Your task to perform on an android device: Go to wifi settings Image 0: 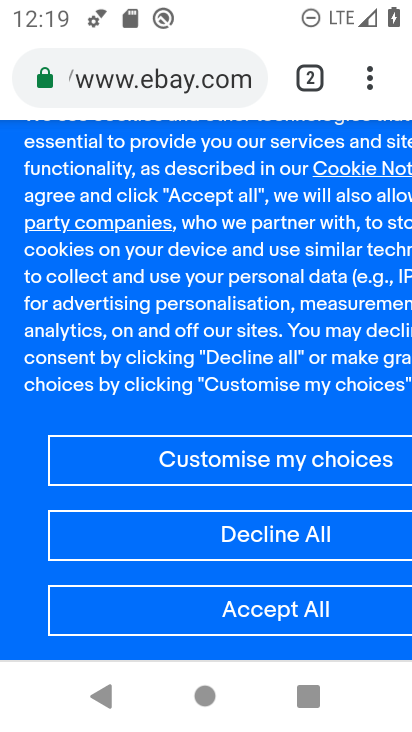
Step 0: press home button
Your task to perform on an android device: Go to wifi settings Image 1: 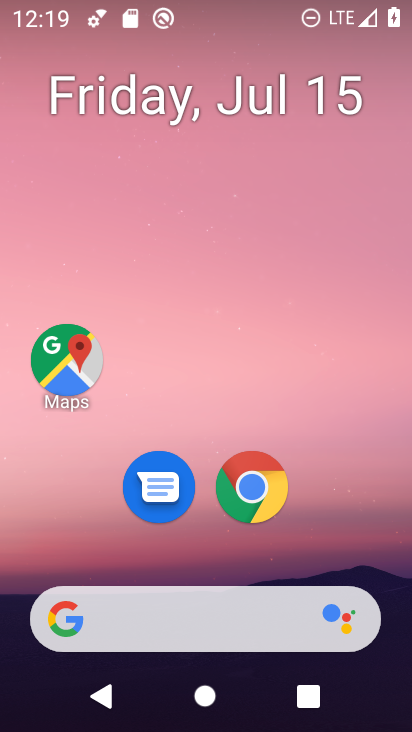
Step 1: drag from (244, 612) to (350, 38)
Your task to perform on an android device: Go to wifi settings Image 2: 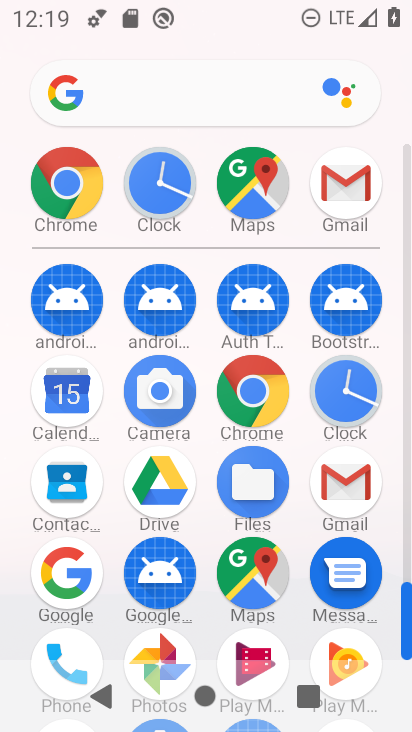
Step 2: drag from (192, 390) to (258, 174)
Your task to perform on an android device: Go to wifi settings Image 3: 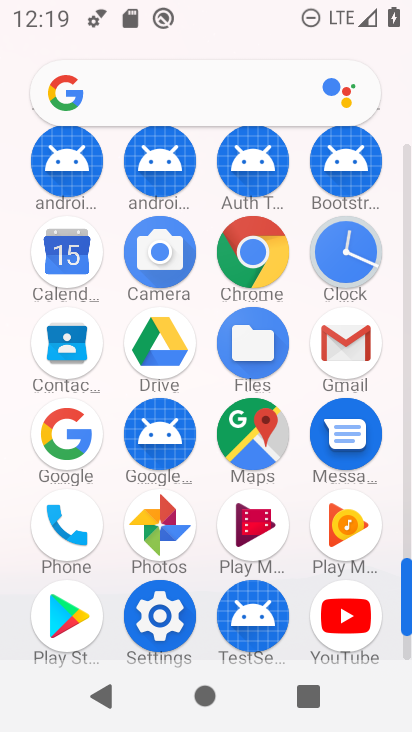
Step 3: click (175, 630)
Your task to perform on an android device: Go to wifi settings Image 4: 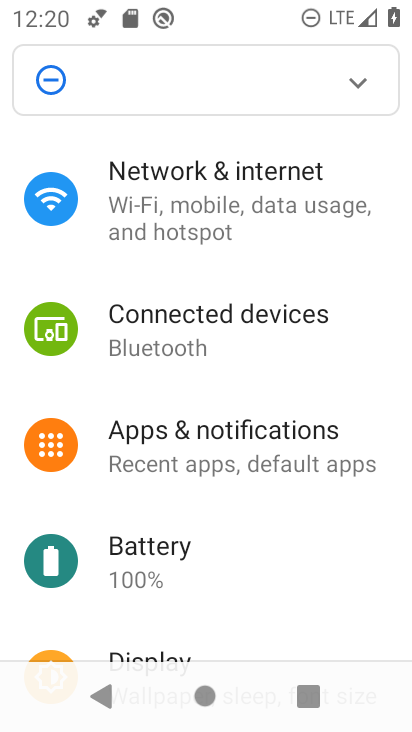
Step 4: drag from (154, 545) to (171, 383)
Your task to perform on an android device: Go to wifi settings Image 5: 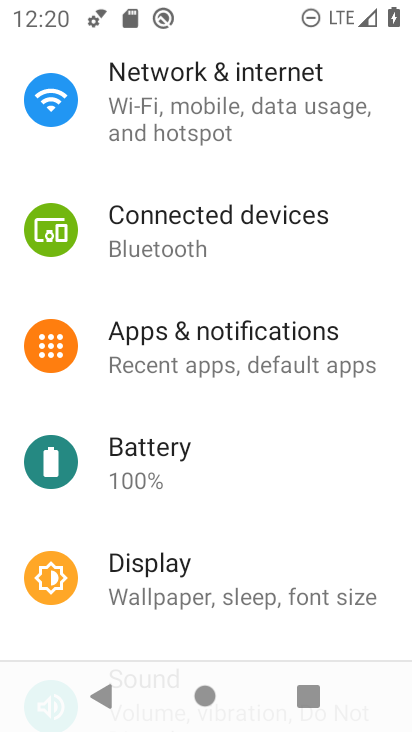
Step 5: drag from (202, 276) to (216, 551)
Your task to perform on an android device: Go to wifi settings Image 6: 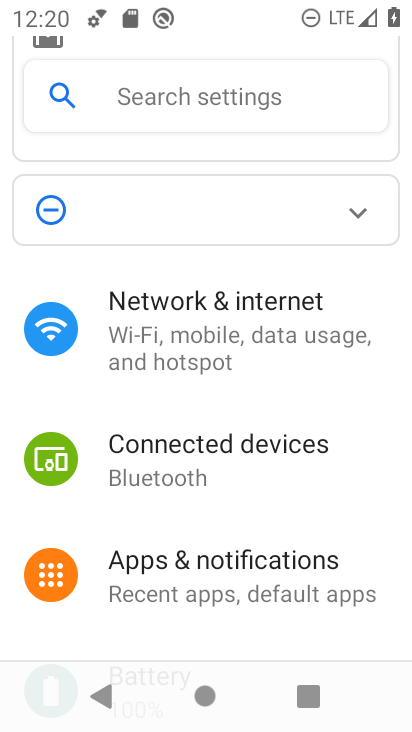
Step 6: click (207, 346)
Your task to perform on an android device: Go to wifi settings Image 7: 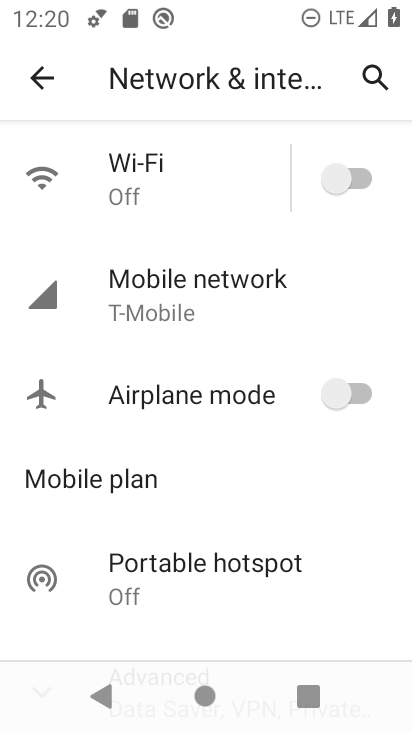
Step 7: click (174, 186)
Your task to perform on an android device: Go to wifi settings Image 8: 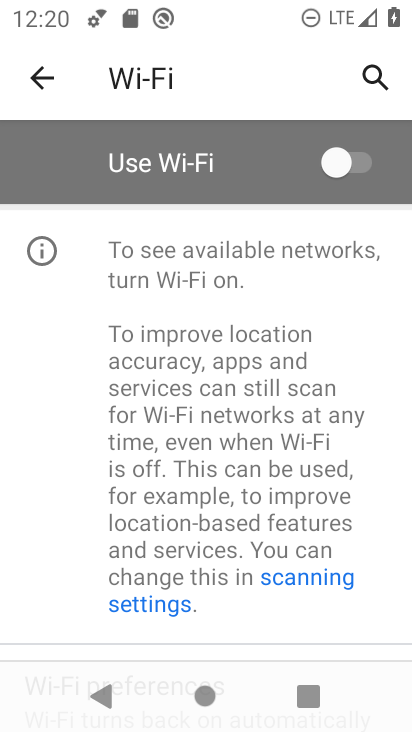
Step 8: task complete